Your task to perform on an android device: see tabs open on other devices in the chrome app Image 0: 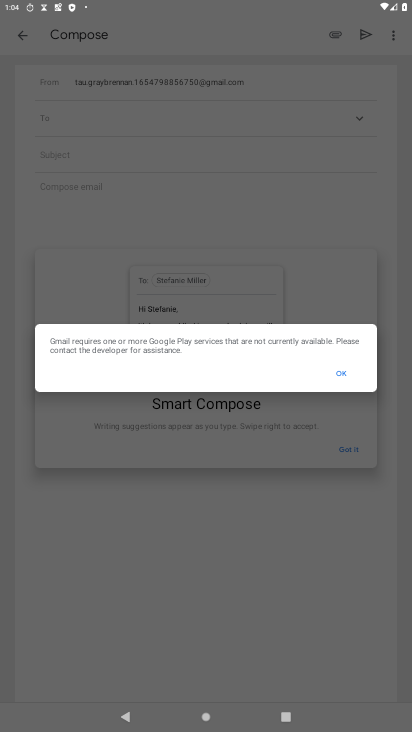
Step 0: press home button
Your task to perform on an android device: see tabs open on other devices in the chrome app Image 1: 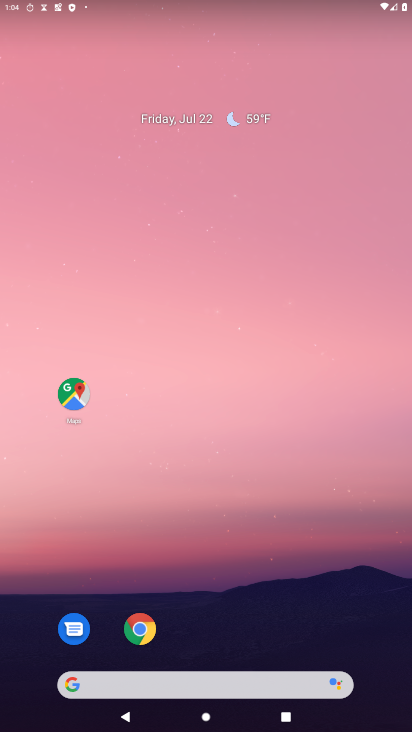
Step 1: drag from (194, 663) to (103, 3)
Your task to perform on an android device: see tabs open on other devices in the chrome app Image 2: 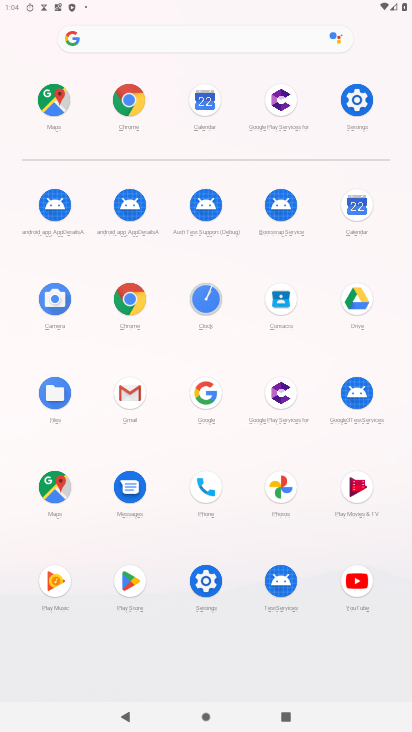
Step 2: click (127, 301)
Your task to perform on an android device: see tabs open on other devices in the chrome app Image 3: 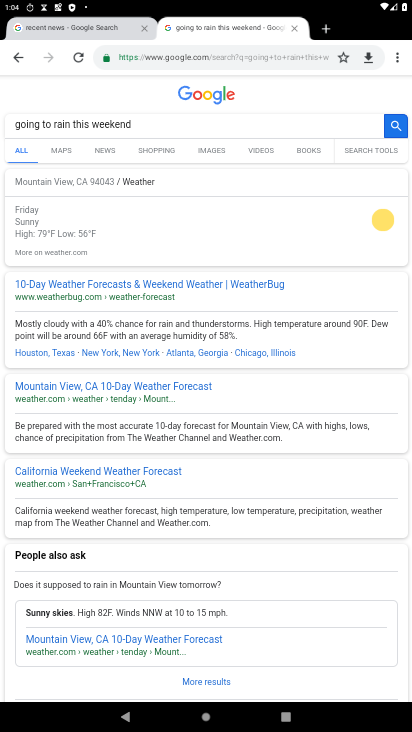
Step 3: task complete